Your task to perform on an android device: How do I get to the nearest electronics store? Image 0: 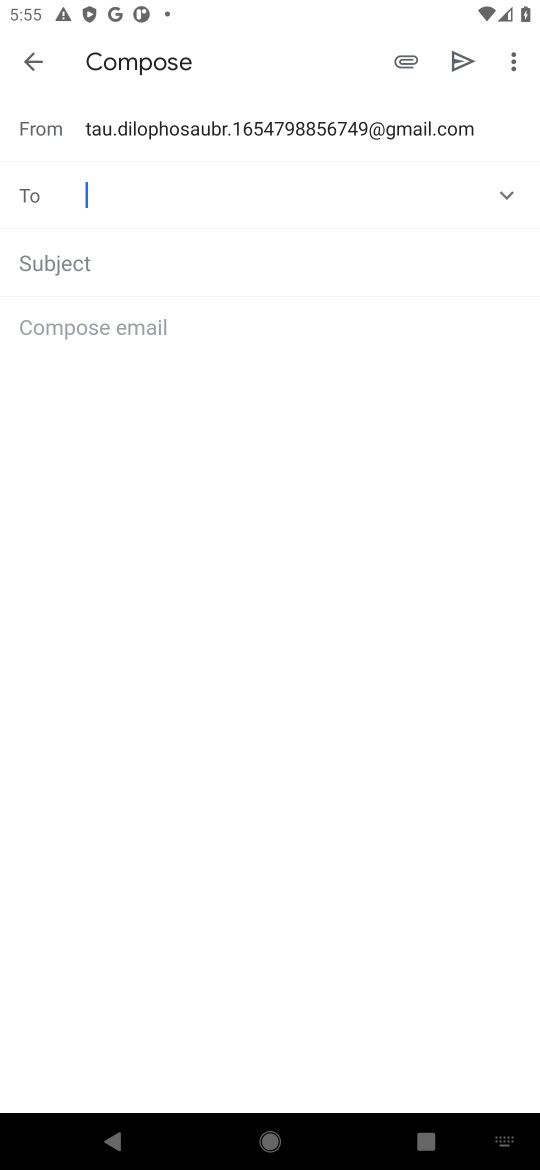
Step 0: press home button
Your task to perform on an android device: How do I get to the nearest electronics store? Image 1: 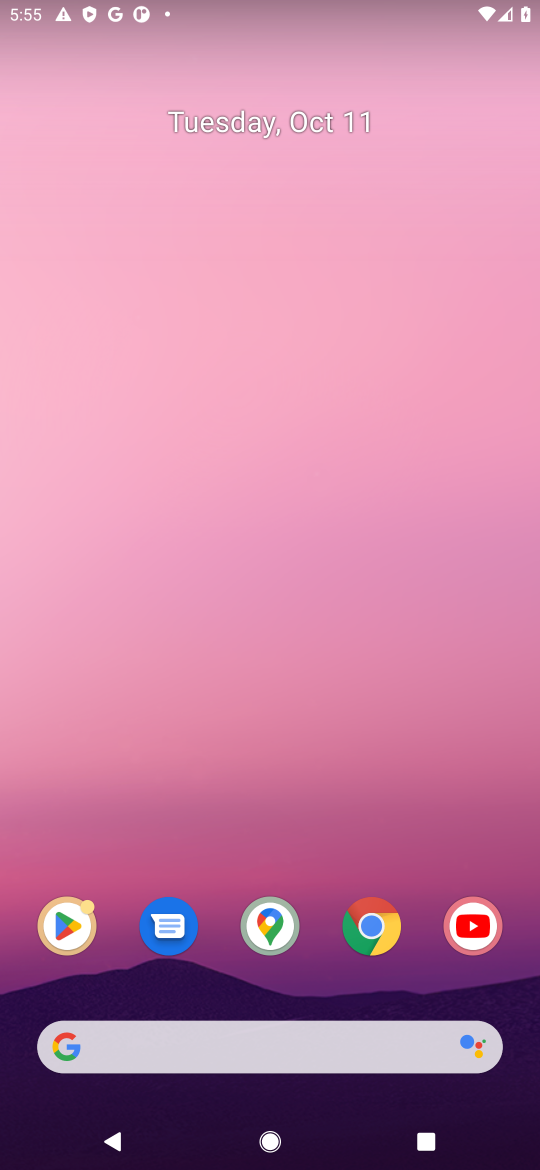
Step 1: click (286, 1045)
Your task to perform on an android device: How do I get to the nearest electronics store? Image 2: 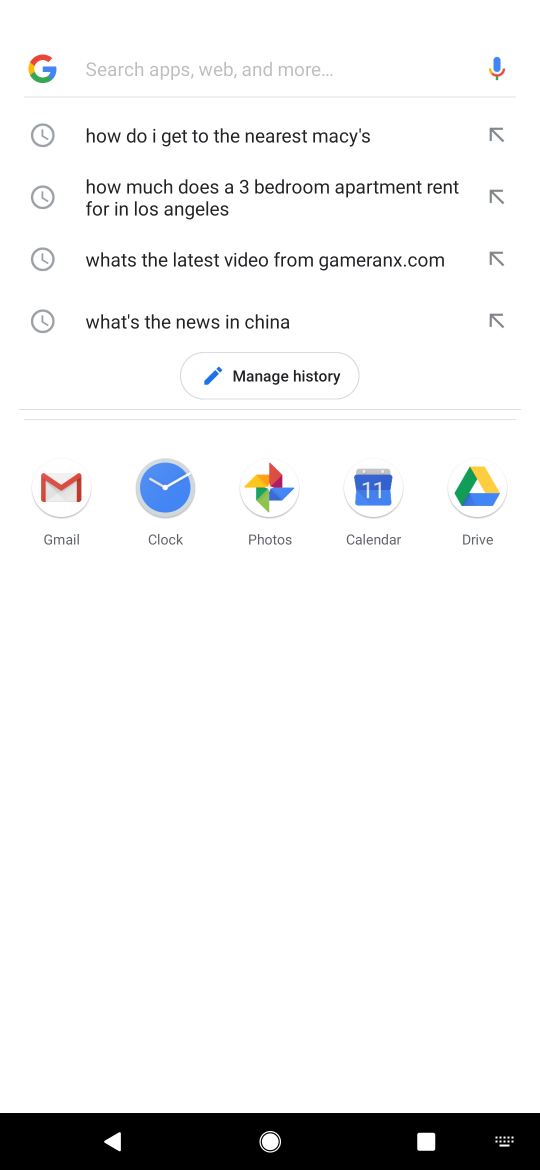
Step 2: type "How do I get to the nearest electronics store?"
Your task to perform on an android device: How do I get to the nearest electronics store? Image 3: 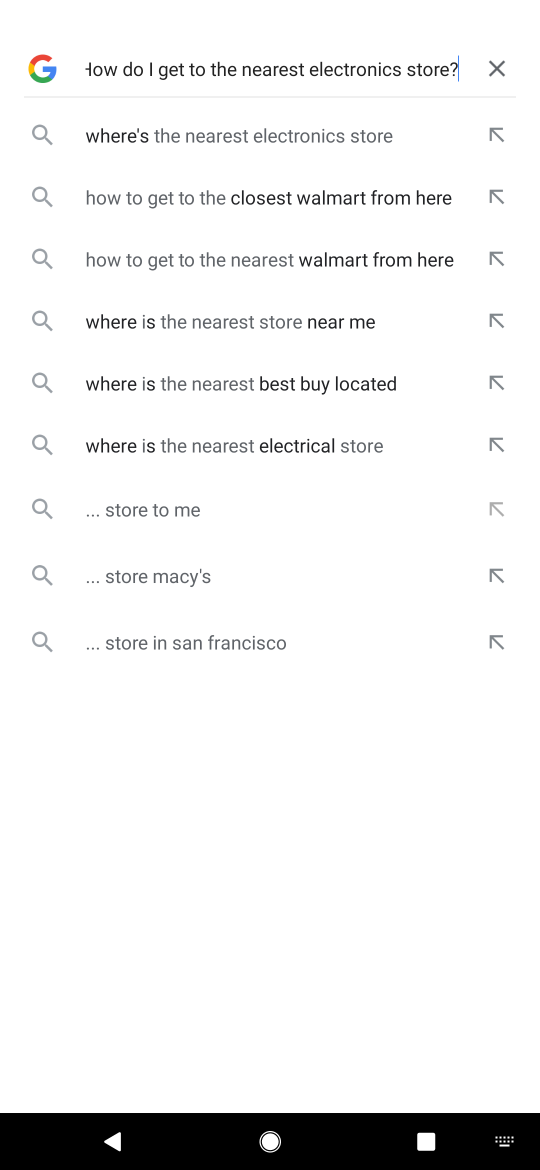
Step 3: click (227, 130)
Your task to perform on an android device: How do I get to the nearest electronics store? Image 4: 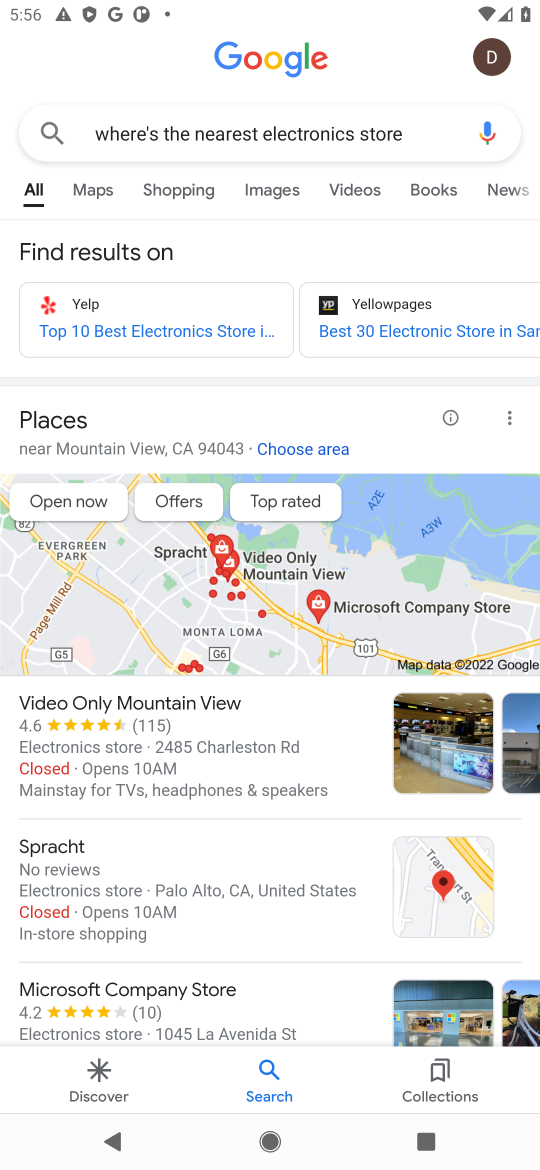
Step 4: task complete